Your task to perform on an android device: What's the weather? Image 0: 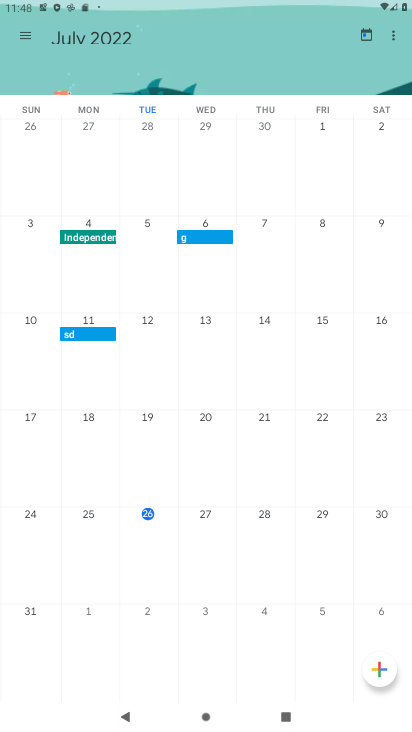
Step 0: press home button
Your task to perform on an android device: What's the weather? Image 1: 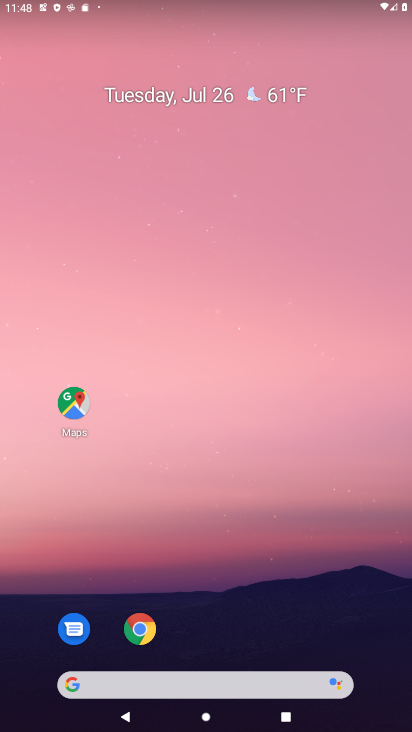
Step 1: click (246, 684)
Your task to perform on an android device: What's the weather? Image 2: 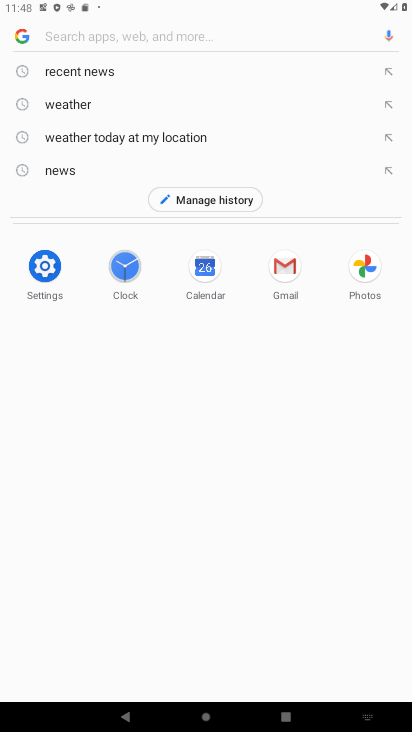
Step 2: click (173, 96)
Your task to perform on an android device: What's the weather? Image 3: 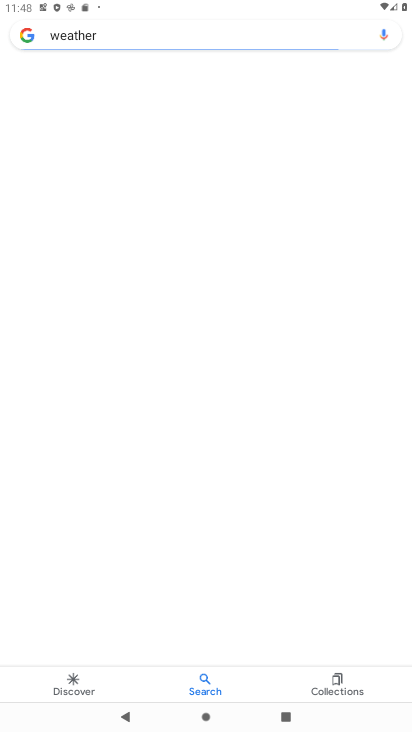
Step 3: task complete